Your task to perform on an android device: Show me recent news Image 0: 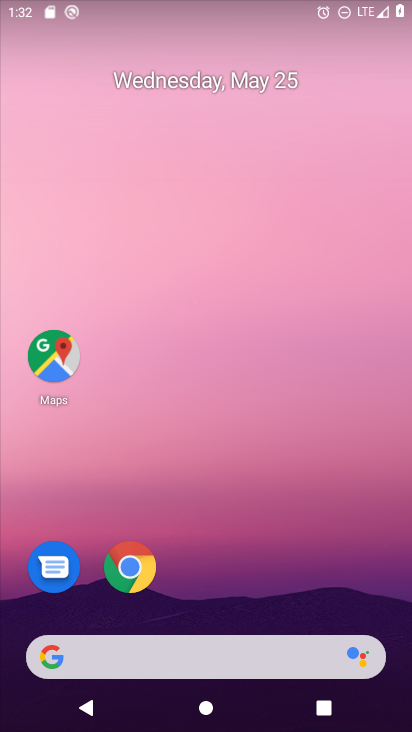
Step 0: drag from (395, 696) to (378, 174)
Your task to perform on an android device: Show me recent news Image 1: 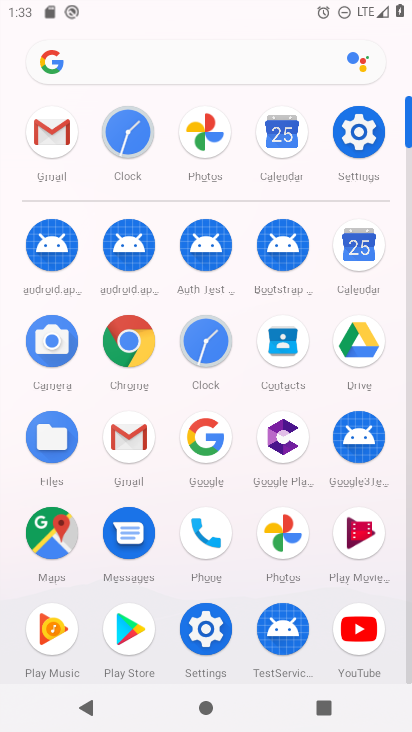
Step 1: click (211, 438)
Your task to perform on an android device: Show me recent news Image 2: 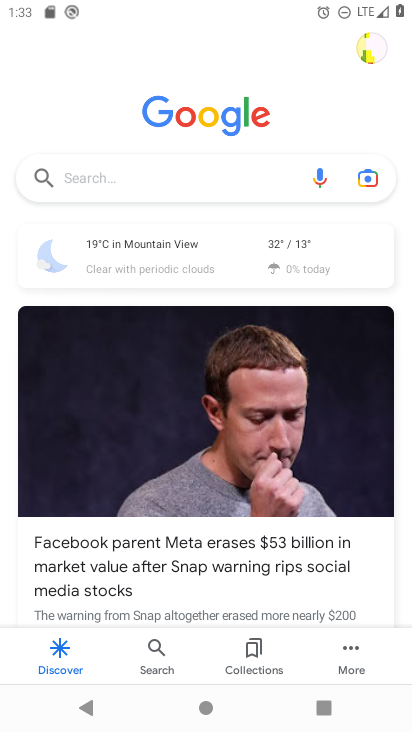
Step 2: task complete